Your task to perform on an android device: set the timer Image 0: 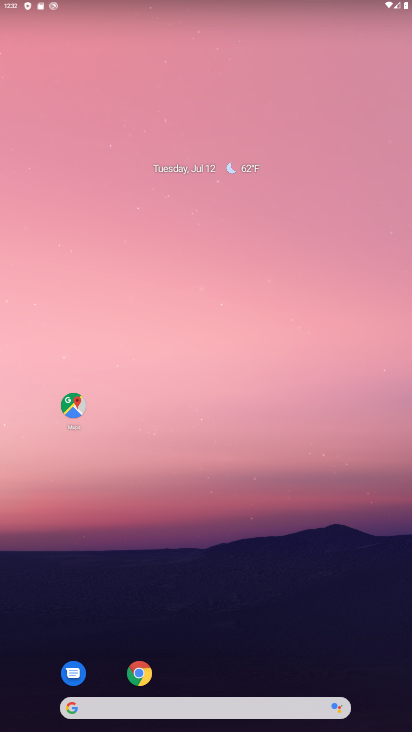
Step 0: press home button
Your task to perform on an android device: set the timer Image 1: 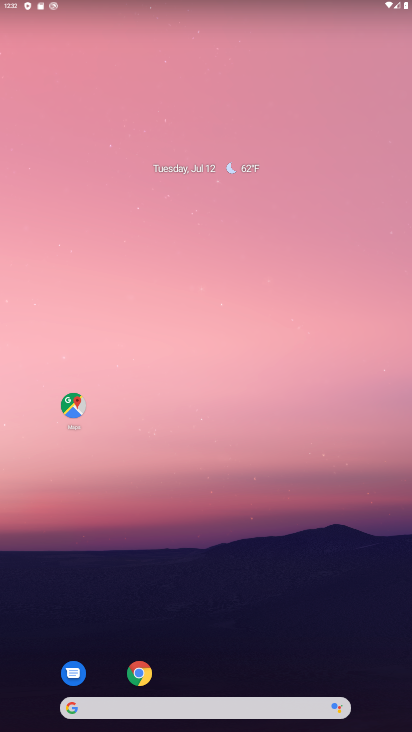
Step 1: drag from (211, 662) to (192, 43)
Your task to perform on an android device: set the timer Image 2: 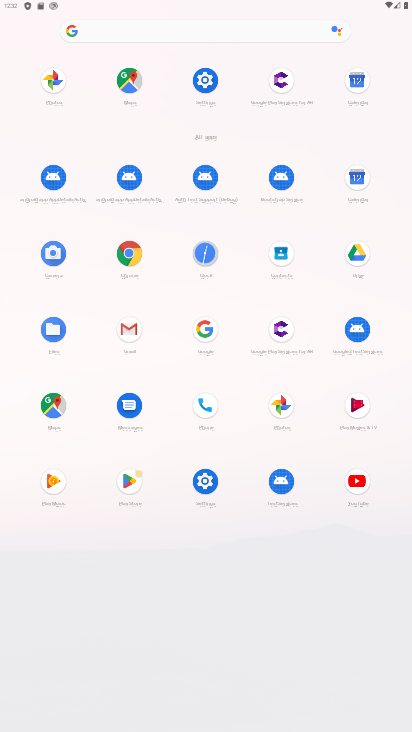
Step 2: click (203, 251)
Your task to perform on an android device: set the timer Image 3: 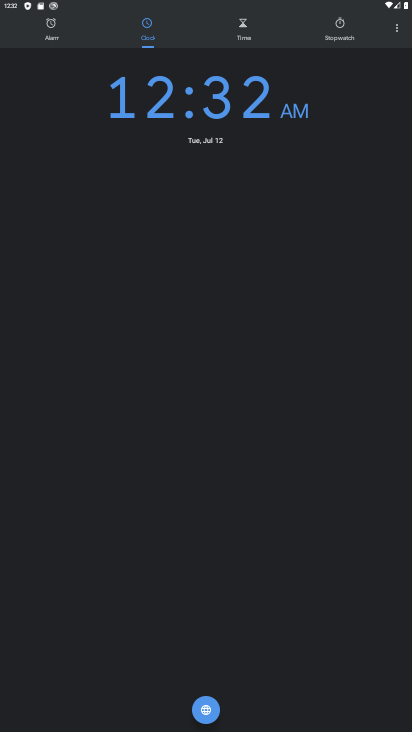
Step 3: click (241, 26)
Your task to perform on an android device: set the timer Image 4: 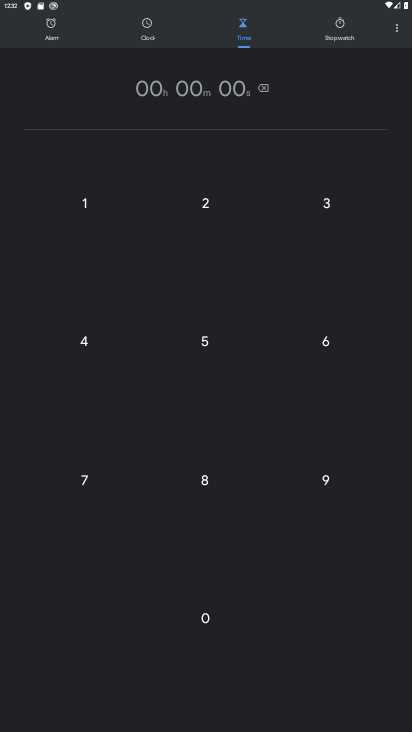
Step 4: click (208, 204)
Your task to perform on an android device: set the timer Image 5: 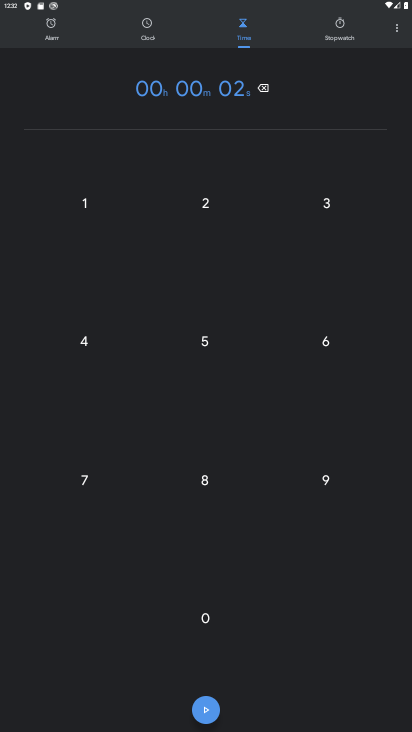
Step 5: click (205, 622)
Your task to perform on an android device: set the timer Image 6: 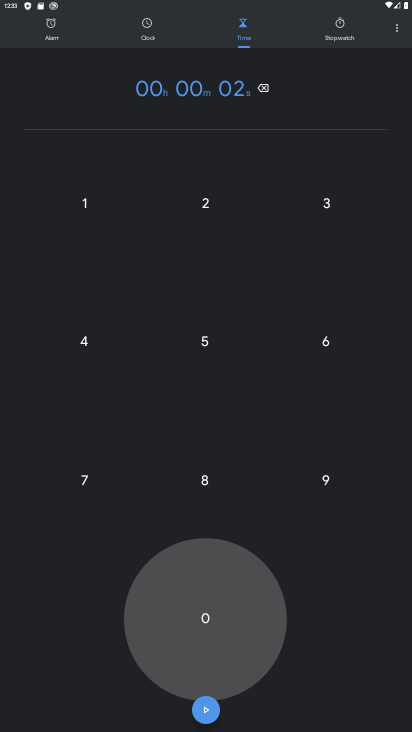
Step 6: click (205, 622)
Your task to perform on an android device: set the timer Image 7: 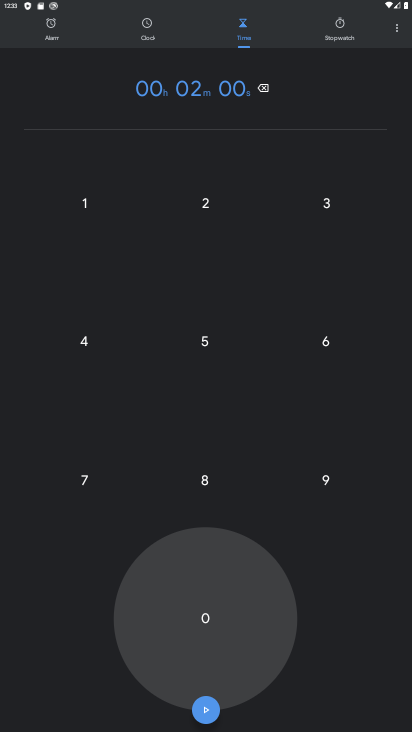
Step 7: click (205, 622)
Your task to perform on an android device: set the timer Image 8: 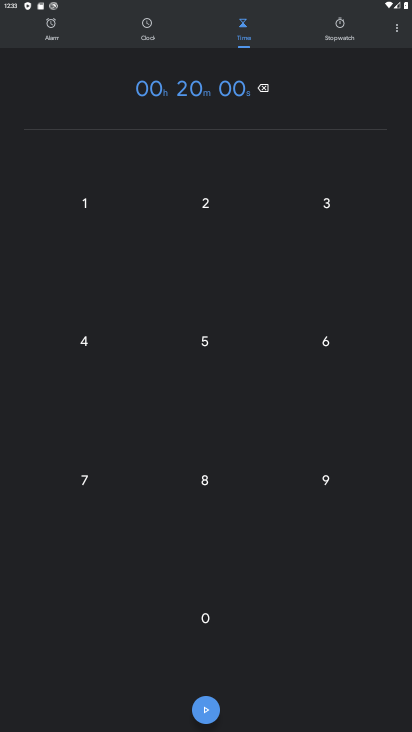
Step 8: click (205, 622)
Your task to perform on an android device: set the timer Image 9: 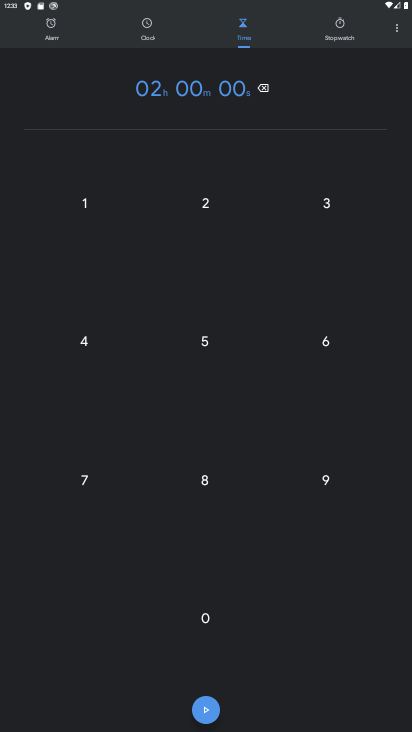
Step 9: click (206, 710)
Your task to perform on an android device: set the timer Image 10: 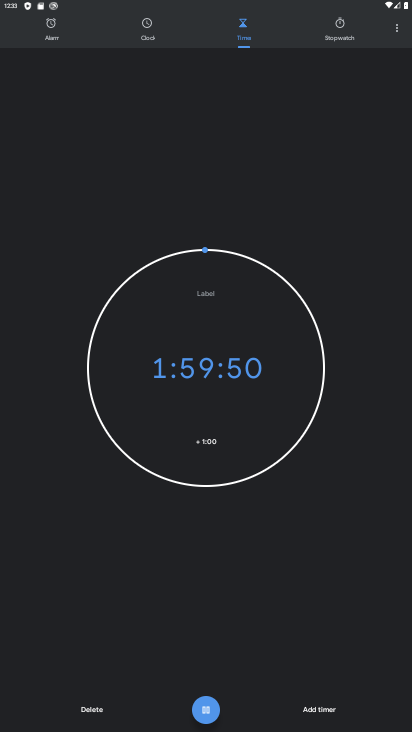
Step 10: task complete